Your task to perform on an android device: change alarm snooze length Image 0: 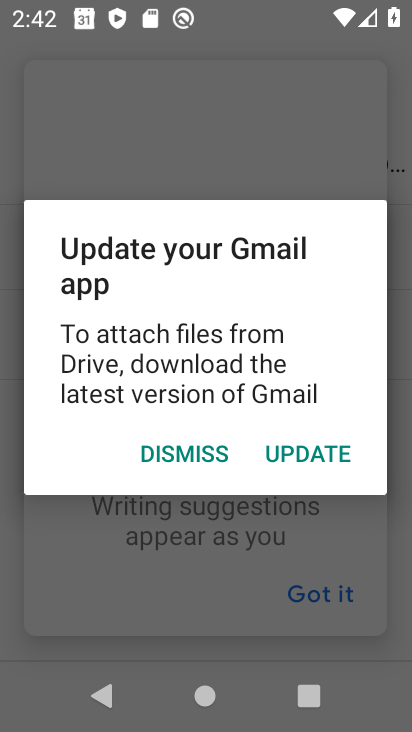
Step 0: press home button
Your task to perform on an android device: change alarm snooze length Image 1: 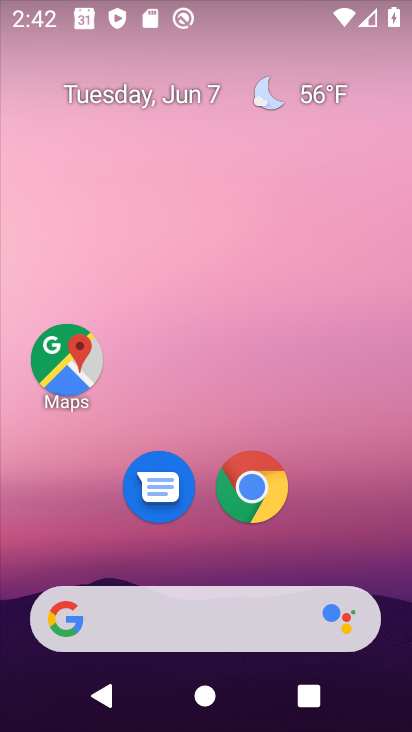
Step 1: drag from (322, 518) to (350, 76)
Your task to perform on an android device: change alarm snooze length Image 2: 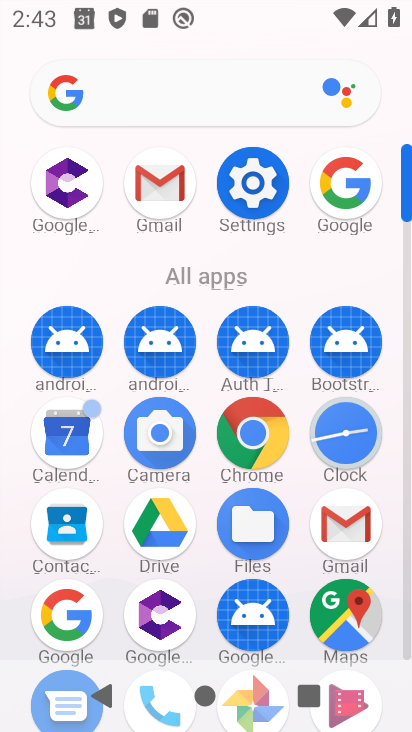
Step 2: click (349, 446)
Your task to perform on an android device: change alarm snooze length Image 3: 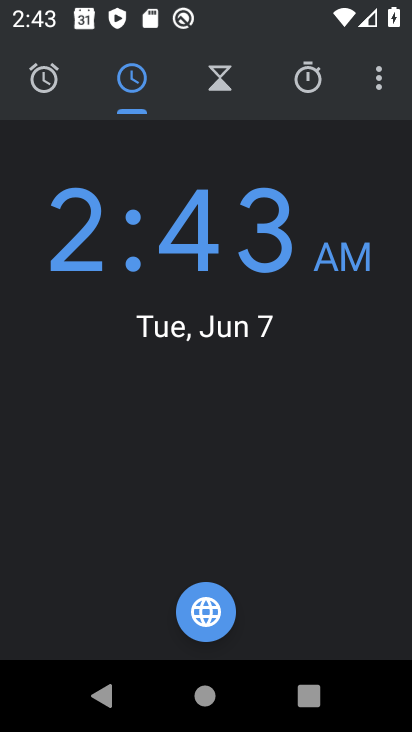
Step 3: click (378, 72)
Your task to perform on an android device: change alarm snooze length Image 4: 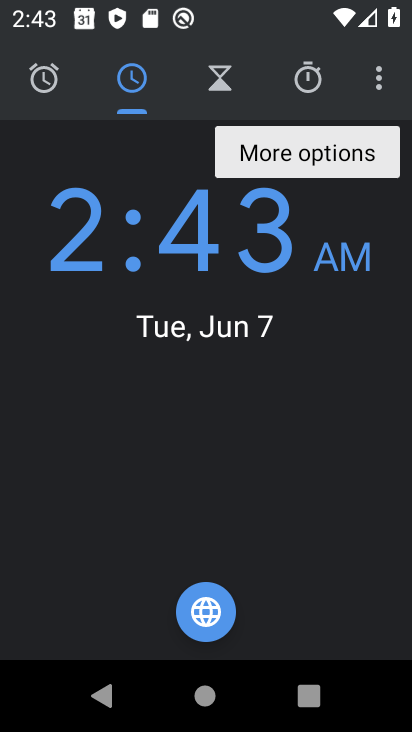
Step 4: click (381, 79)
Your task to perform on an android device: change alarm snooze length Image 5: 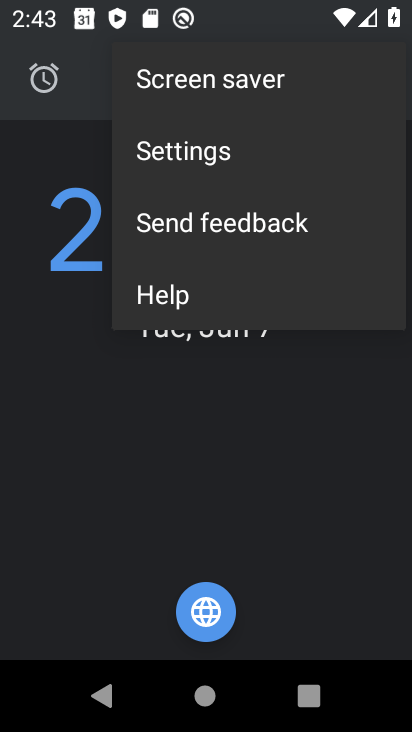
Step 5: click (177, 149)
Your task to perform on an android device: change alarm snooze length Image 6: 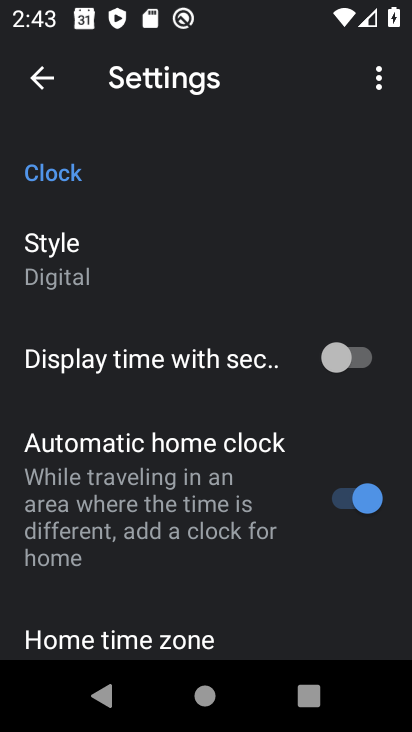
Step 6: drag from (220, 595) to (229, 260)
Your task to perform on an android device: change alarm snooze length Image 7: 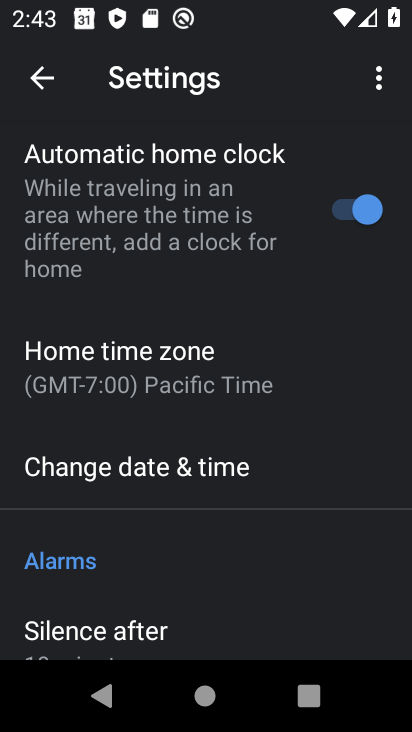
Step 7: drag from (246, 553) to (255, 206)
Your task to perform on an android device: change alarm snooze length Image 8: 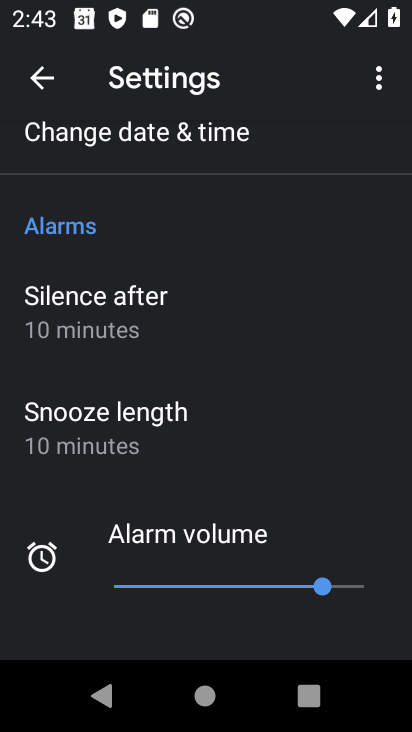
Step 8: click (97, 441)
Your task to perform on an android device: change alarm snooze length Image 9: 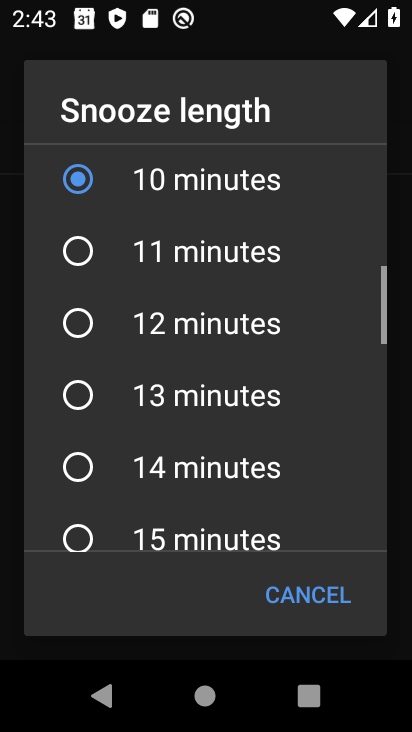
Step 9: click (75, 313)
Your task to perform on an android device: change alarm snooze length Image 10: 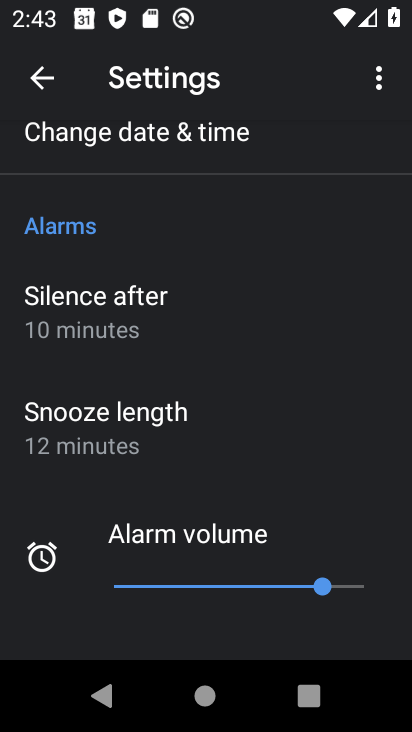
Step 10: task complete